Your task to perform on an android device: open a bookmark in the chrome app Image 0: 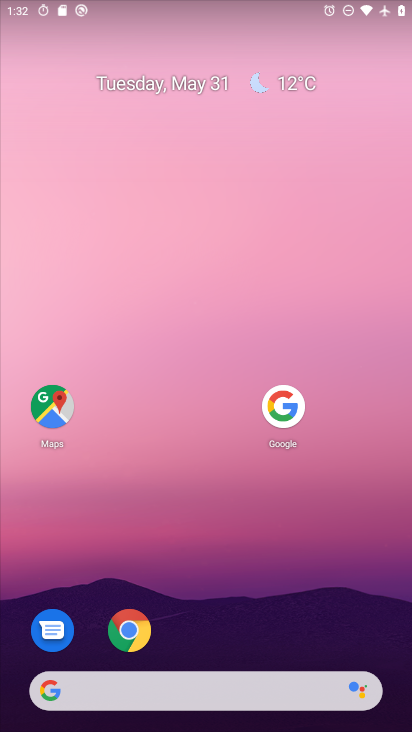
Step 0: click (126, 635)
Your task to perform on an android device: open a bookmark in the chrome app Image 1: 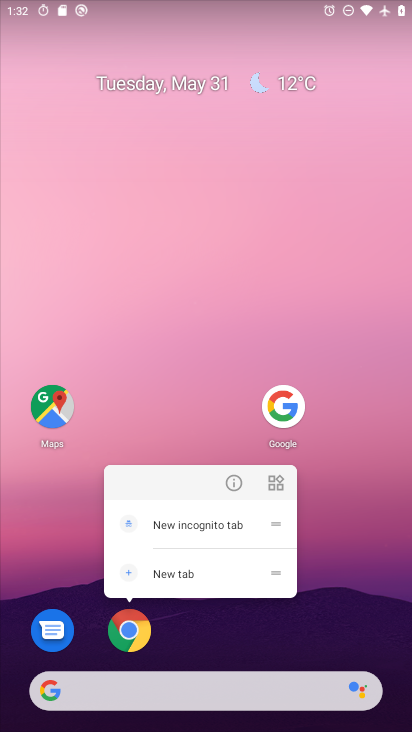
Step 1: click (129, 630)
Your task to perform on an android device: open a bookmark in the chrome app Image 2: 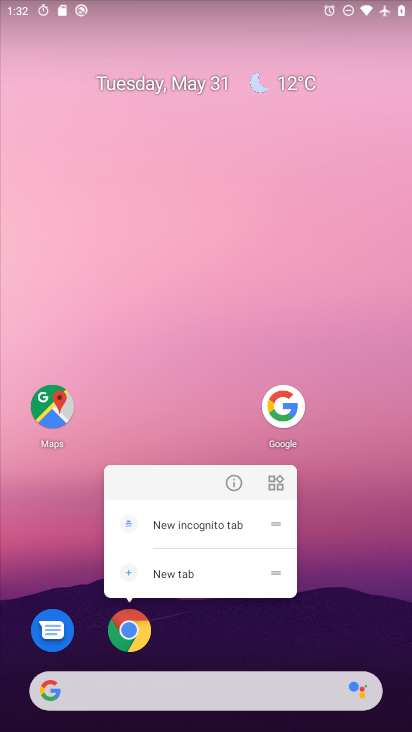
Step 2: click (134, 642)
Your task to perform on an android device: open a bookmark in the chrome app Image 3: 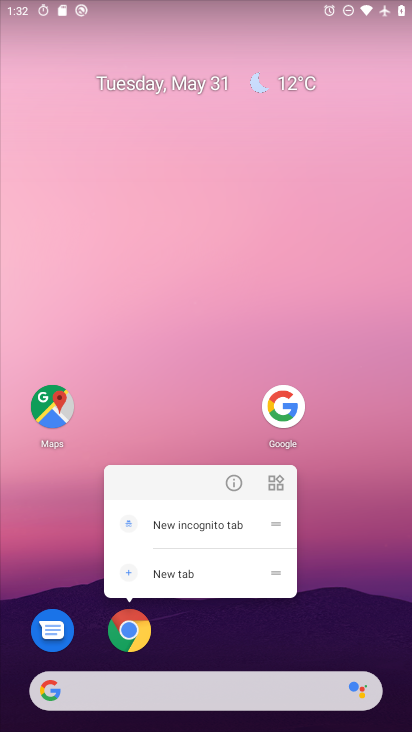
Step 3: click (127, 626)
Your task to perform on an android device: open a bookmark in the chrome app Image 4: 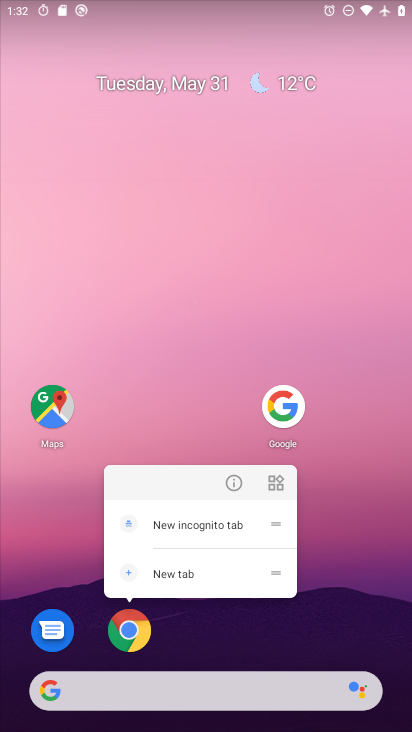
Step 4: click (127, 626)
Your task to perform on an android device: open a bookmark in the chrome app Image 5: 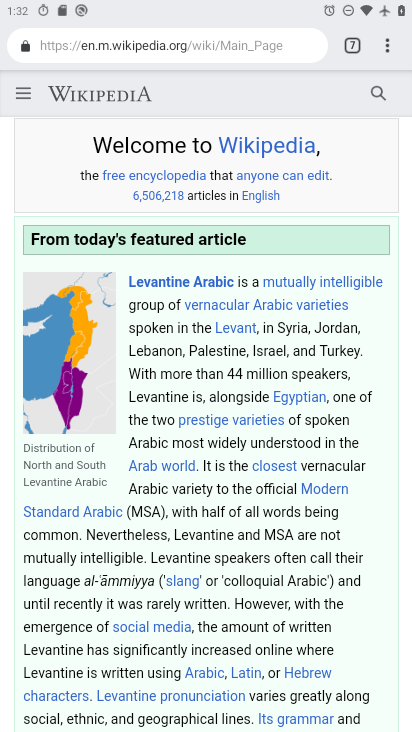
Step 5: task complete